Your task to perform on an android device: Go to notification settings Image 0: 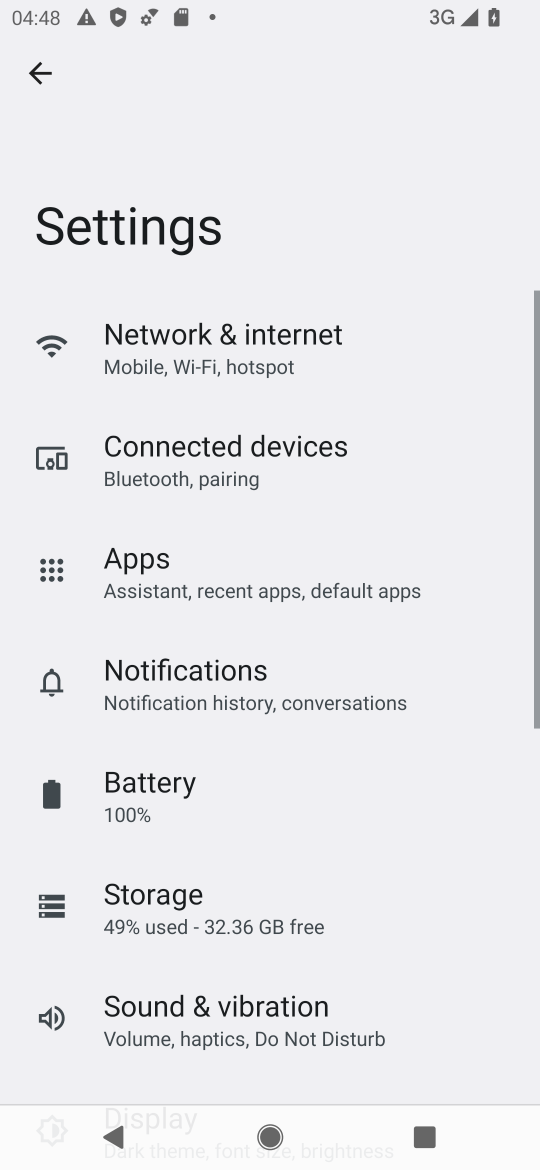
Step 0: press home button
Your task to perform on an android device: Go to notification settings Image 1: 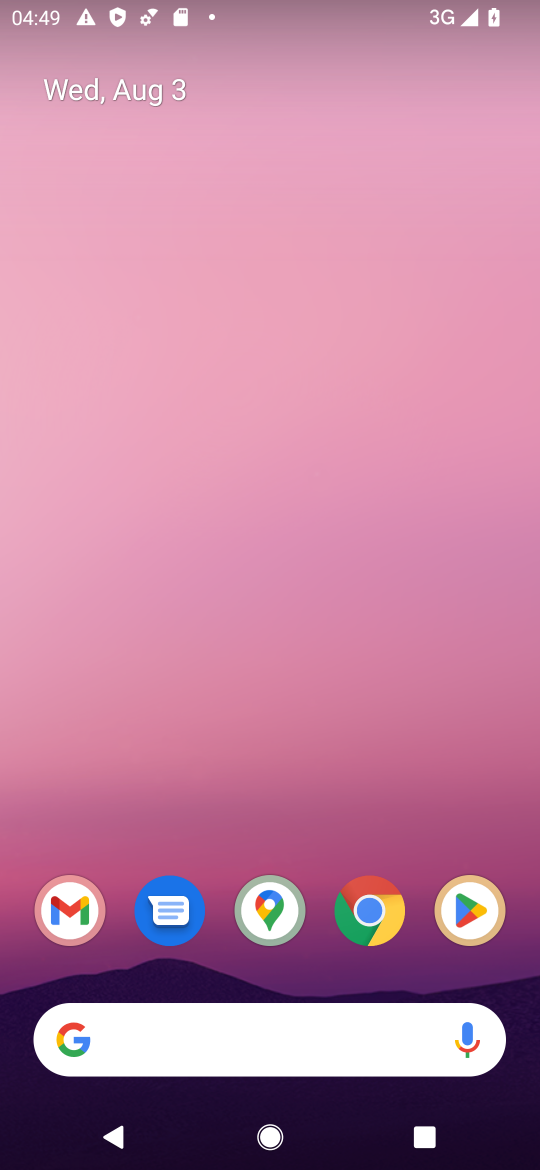
Step 1: drag from (345, 821) to (389, 165)
Your task to perform on an android device: Go to notification settings Image 2: 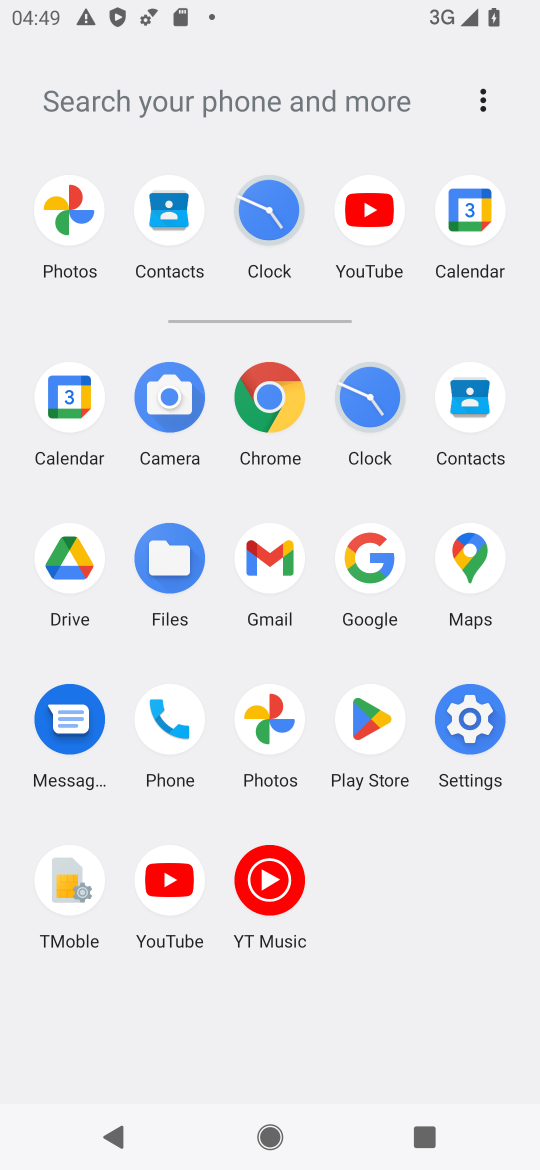
Step 2: click (461, 703)
Your task to perform on an android device: Go to notification settings Image 3: 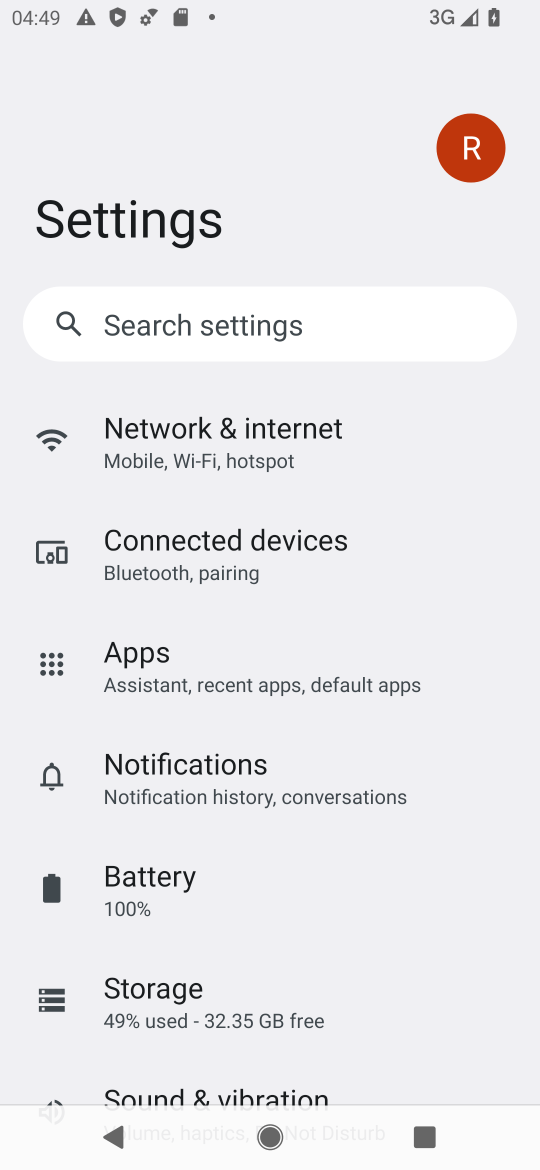
Step 3: click (215, 753)
Your task to perform on an android device: Go to notification settings Image 4: 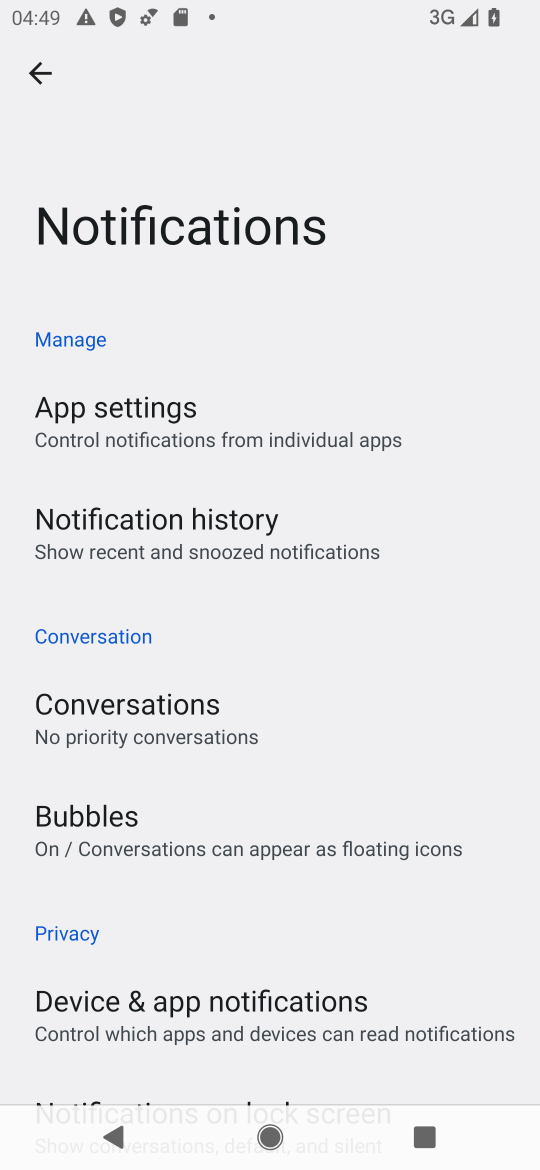
Step 4: task complete